Your task to perform on an android device: change the clock style Image 0: 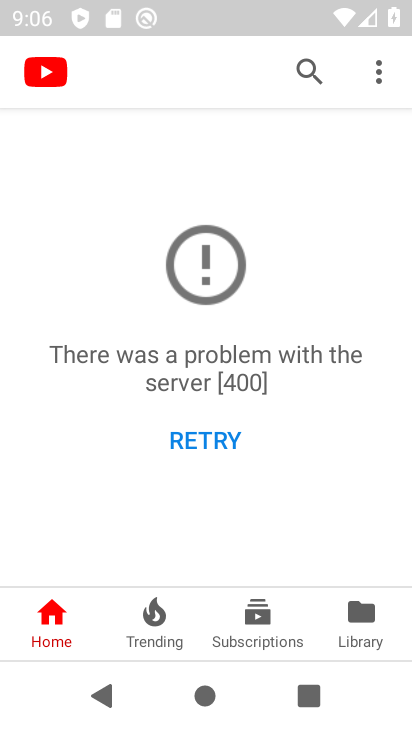
Step 0: press home button
Your task to perform on an android device: change the clock style Image 1: 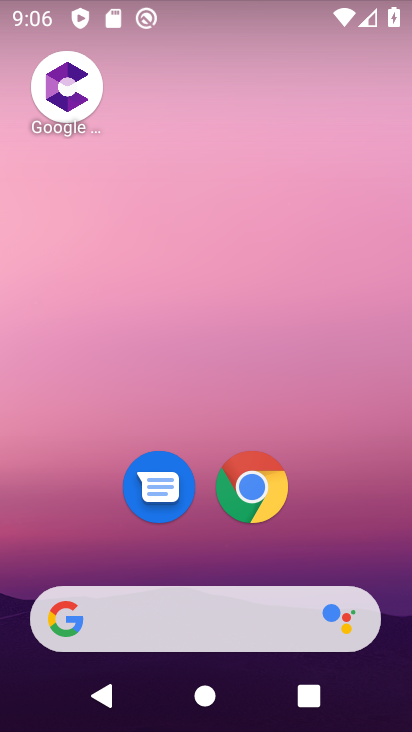
Step 1: drag from (362, 549) to (370, 176)
Your task to perform on an android device: change the clock style Image 2: 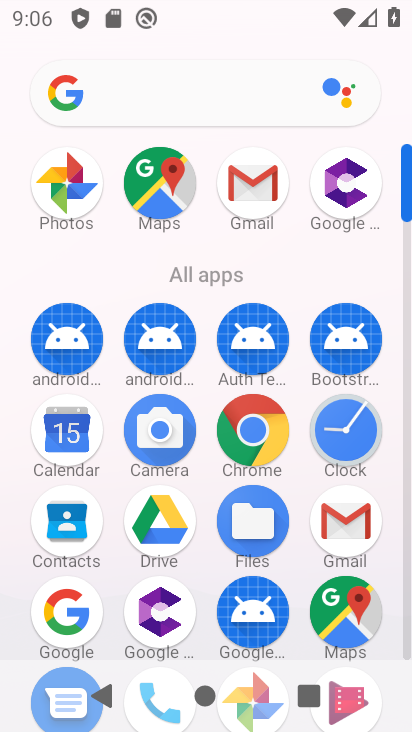
Step 2: click (365, 423)
Your task to perform on an android device: change the clock style Image 3: 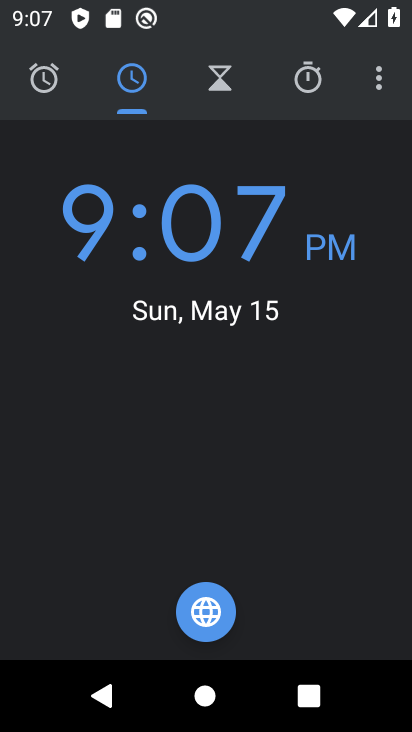
Step 3: drag from (382, 95) to (275, 160)
Your task to perform on an android device: change the clock style Image 4: 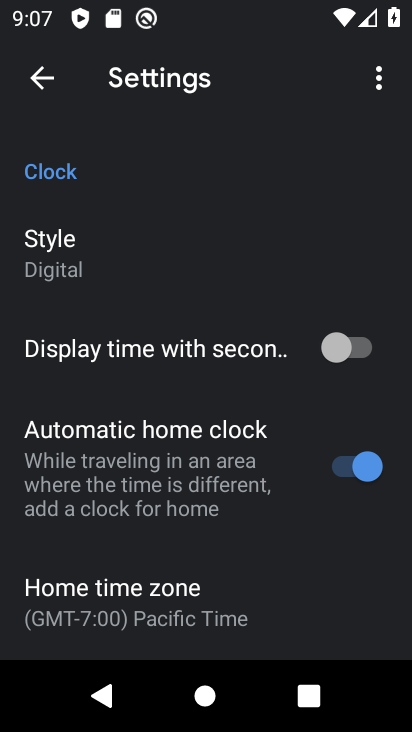
Step 4: click (122, 250)
Your task to perform on an android device: change the clock style Image 5: 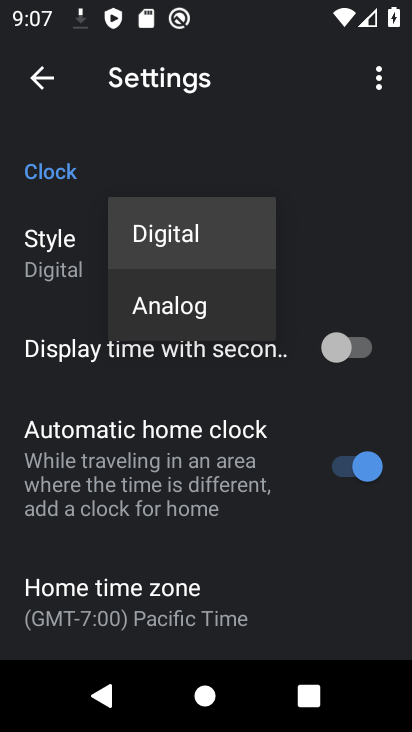
Step 5: click (169, 317)
Your task to perform on an android device: change the clock style Image 6: 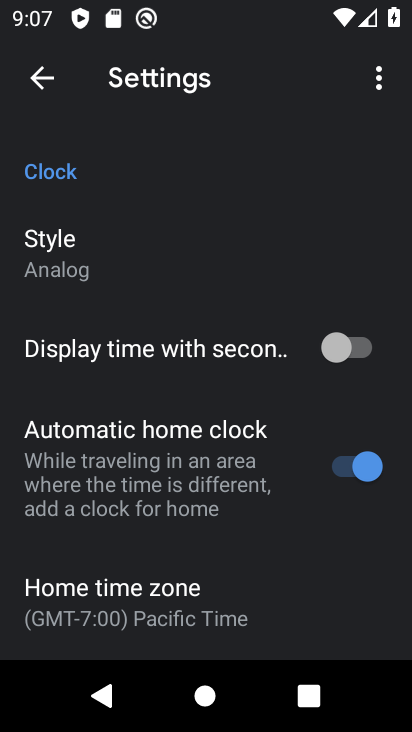
Step 6: task complete